Your task to perform on an android device: Go to eBay Image 0: 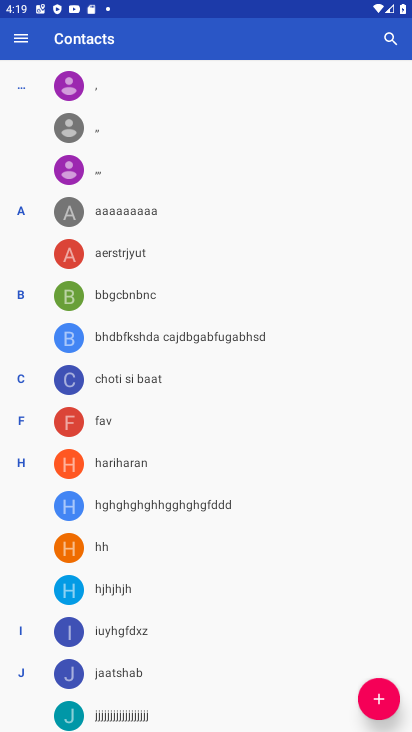
Step 0: press home button
Your task to perform on an android device: Go to eBay Image 1: 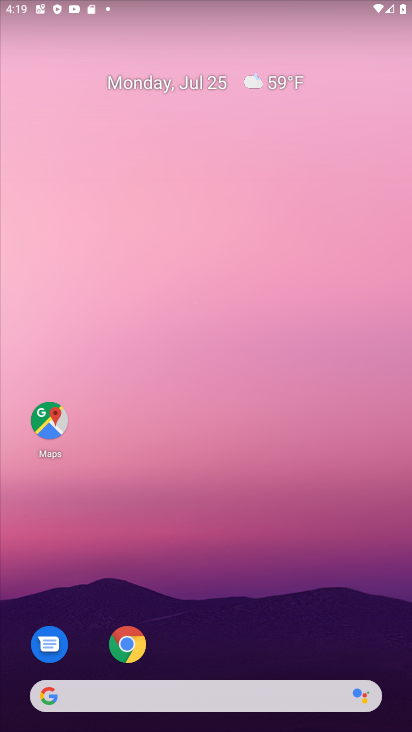
Step 1: drag from (180, 636) to (180, 330)
Your task to perform on an android device: Go to eBay Image 2: 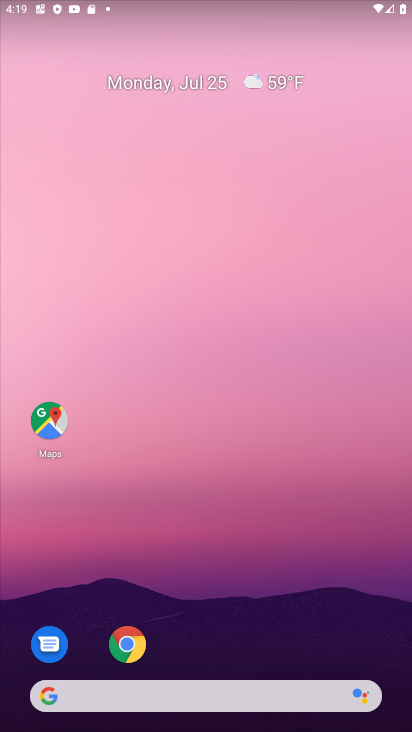
Step 2: drag from (224, 631) to (216, 73)
Your task to perform on an android device: Go to eBay Image 3: 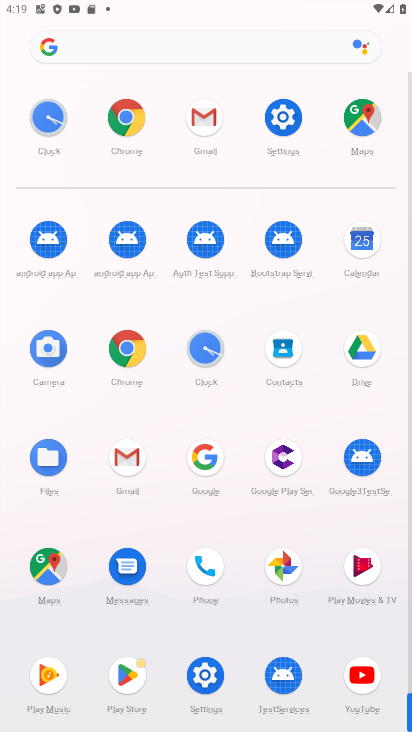
Step 3: click (217, 454)
Your task to perform on an android device: Go to eBay Image 4: 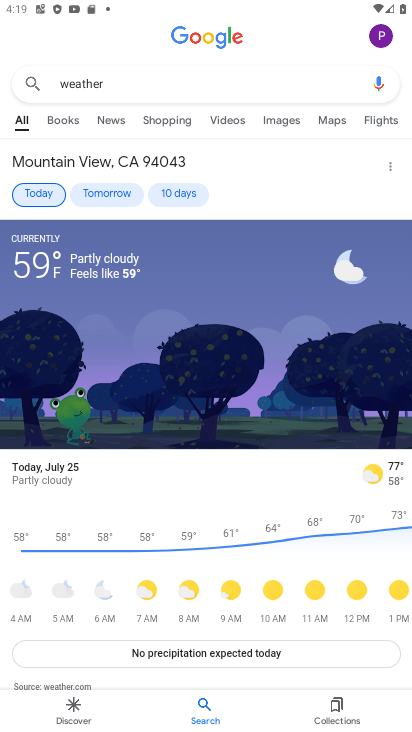
Step 4: click (157, 87)
Your task to perform on an android device: Go to eBay Image 5: 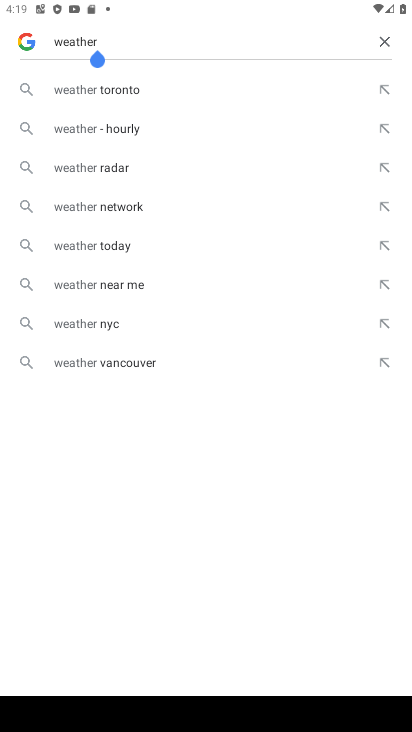
Step 5: click (379, 40)
Your task to perform on an android device: Go to eBay Image 6: 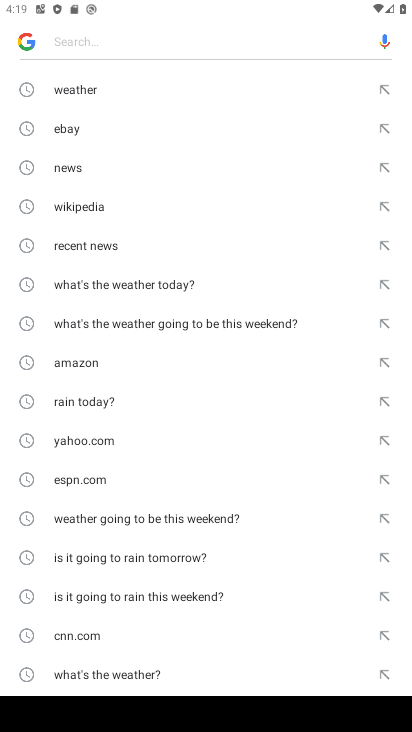
Step 6: click (71, 132)
Your task to perform on an android device: Go to eBay Image 7: 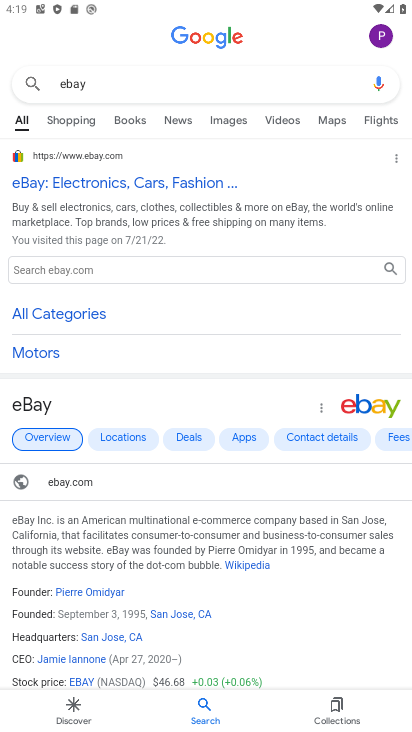
Step 7: click (109, 187)
Your task to perform on an android device: Go to eBay Image 8: 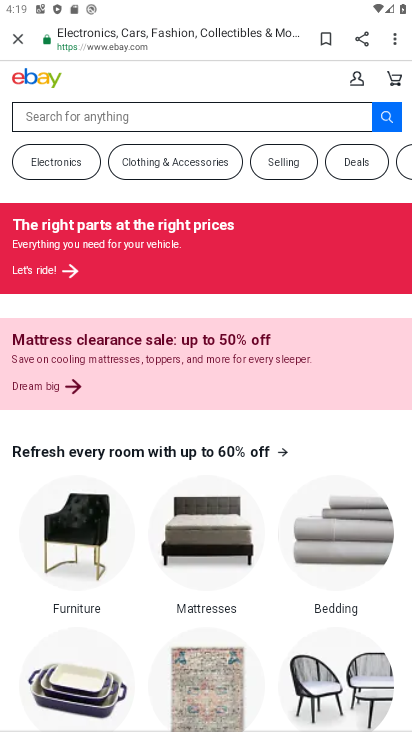
Step 8: task complete